Your task to perform on an android device: change the clock display to digital Image 0: 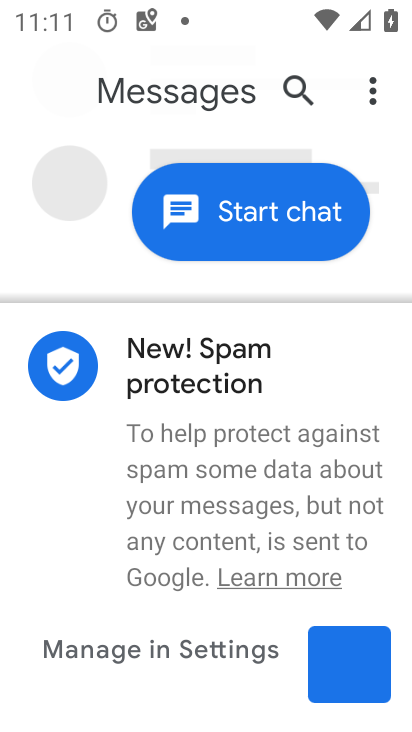
Step 0: press home button
Your task to perform on an android device: change the clock display to digital Image 1: 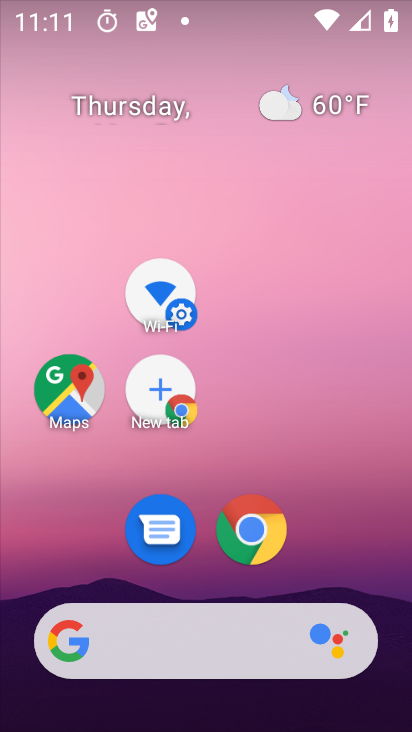
Step 1: drag from (338, 534) to (129, 0)
Your task to perform on an android device: change the clock display to digital Image 2: 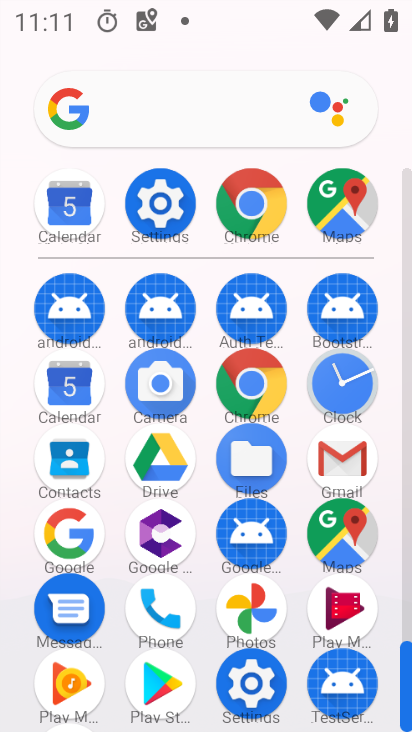
Step 2: click (339, 390)
Your task to perform on an android device: change the clock display to digital Image 3: 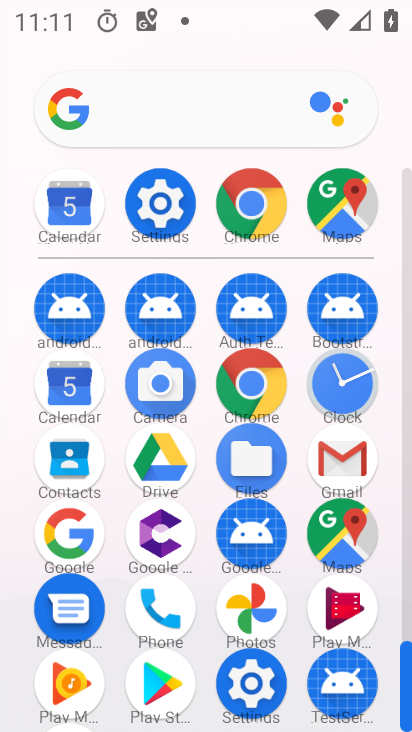
Step 3: click (340, 389)
Your task to perform on an android device: change the clock display to digital Image 4: 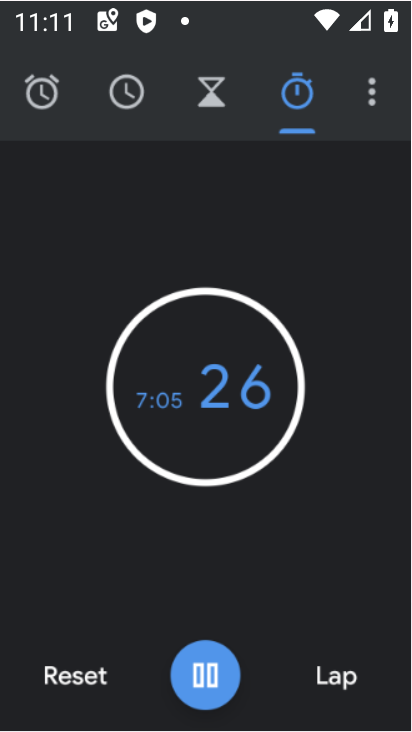
Step 4: click (340, 389)
Your task to perform on an android device: change the clock display to digital Image 5: 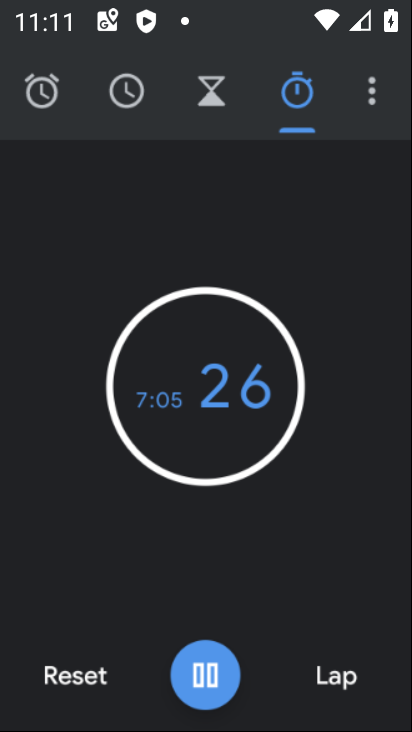
Step 5: click (340, 389)
Your task to perform on an android device: change the clock display to digital Image 6: 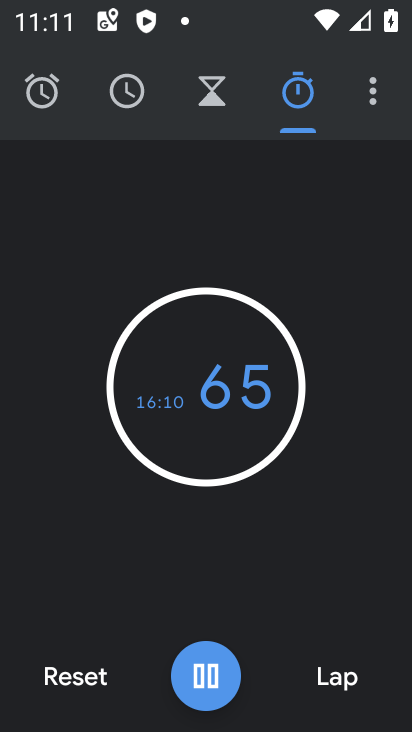
Step 6: click (375, 106)
Your task to perform on an android device: change the clock display to digital Image 7: 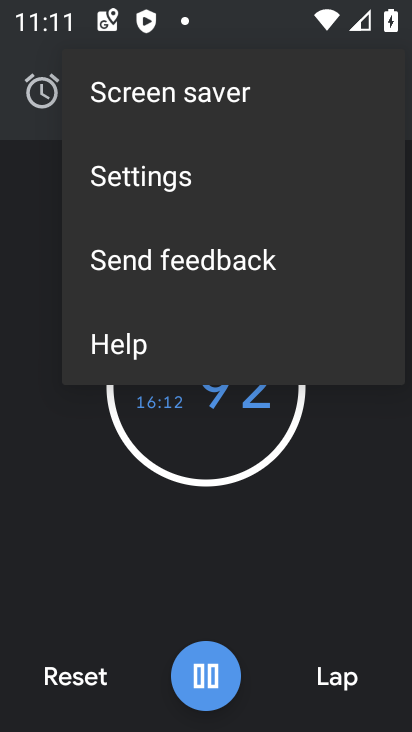
Step 7: click (163, 175)
Your task to perform on an android device: change the clock display to digital Image 8: 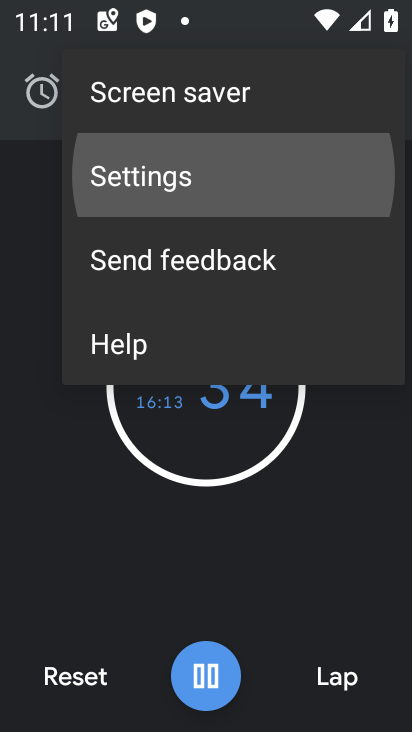
Step 8: click (163, 175)
Your task to perform on an android device: change the clock display to digital Image 9: 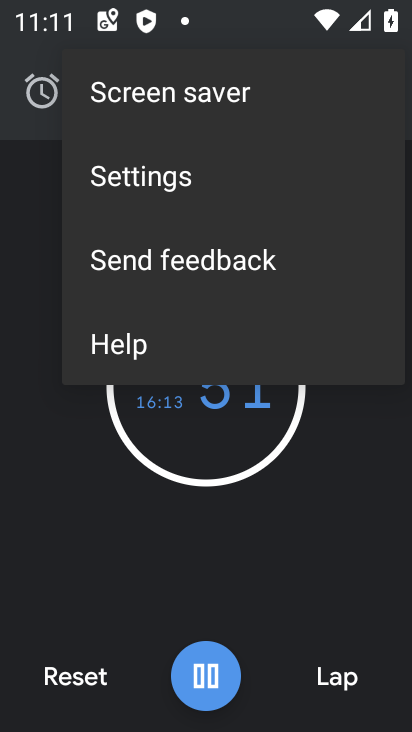
Step 9: click (163, 175)
Your task to perform on an android device: change the clock display to digital Image 10: 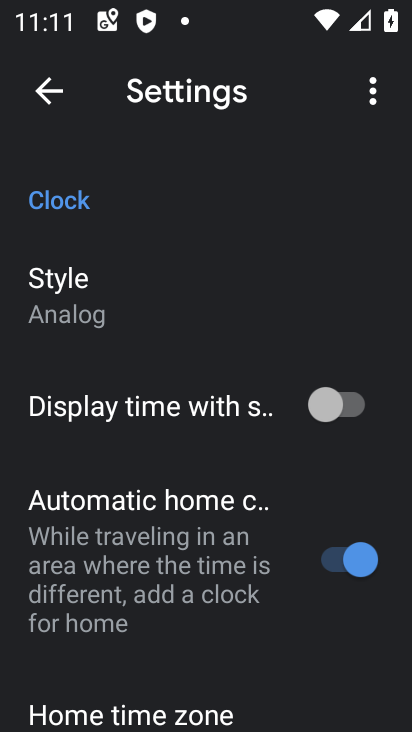
Step 10: click (134, 297)
Your task to perform on an android device: change the clock display to digital Image 11: 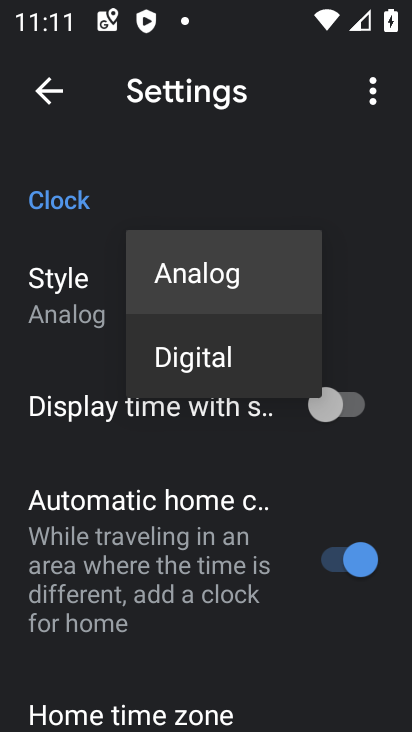
Step 11: click (241, 355)
Your task to perform on an android device: change the clock display to digital Image 12: 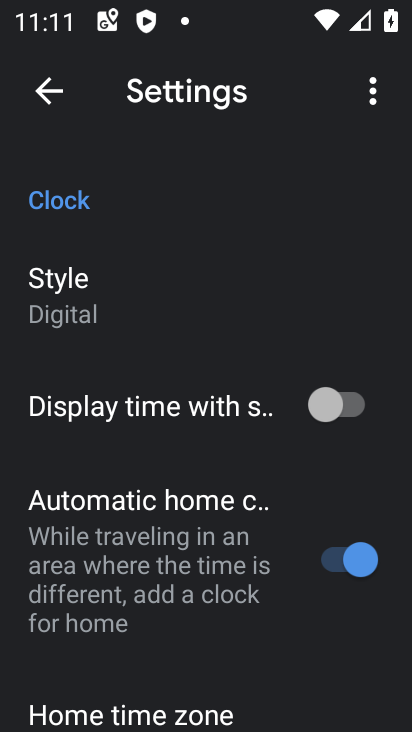
Step 12: task complete